Your task to perform on an android device: Open Google Chrome Image 0: 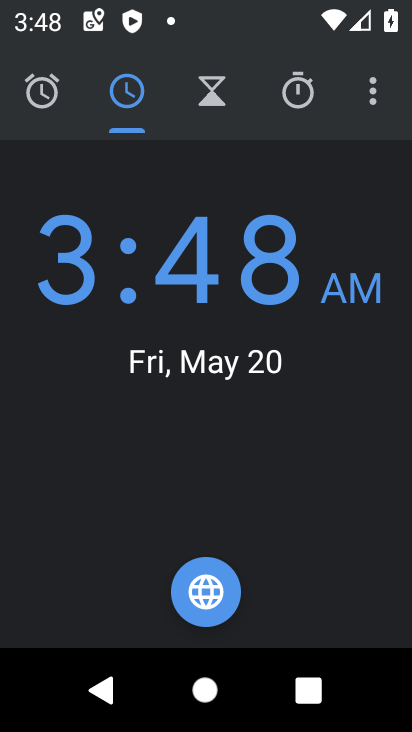
Step 0: press home button
Your task to perform on an android device: Open Google Chrome Image 1: 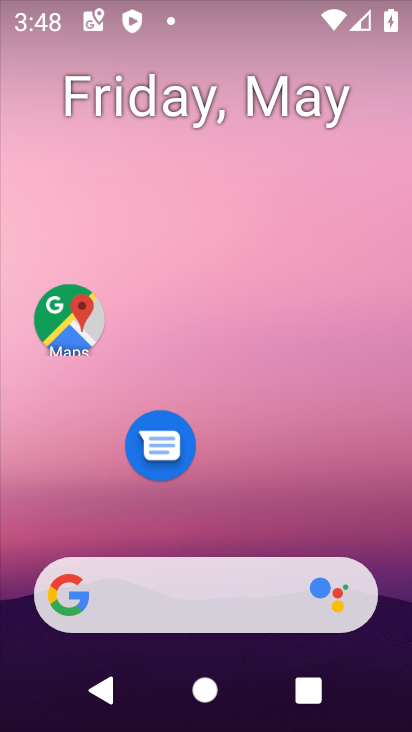
Step 1: drag from (187, 520) to (218, 13)
Your task to perform on an android device: Open Google Chrome Image 2: 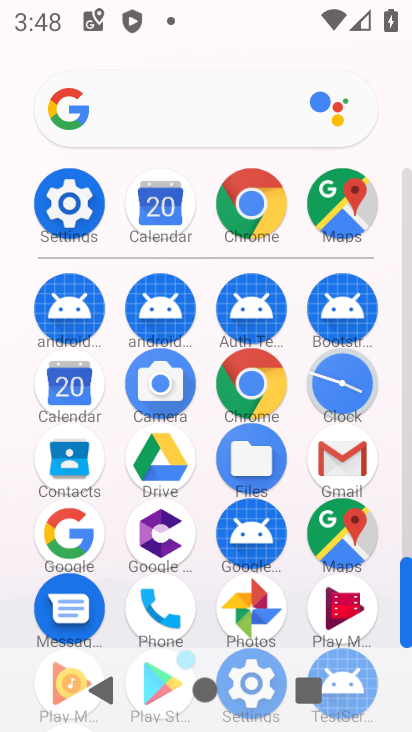
Step 2: click (246, 192)
Your task to perform on an android device: Open Google Chrome Image 3: 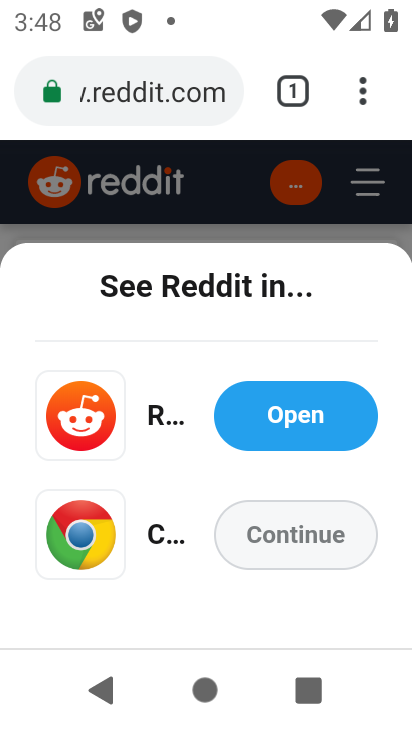
Step 3: task complete